Your task to perform on an android device: move a message to another label in the gmail app Image 0: 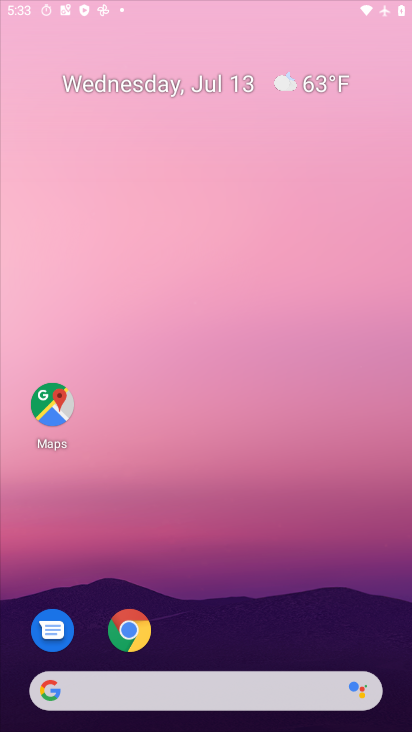
Step 0: press home button
Your task to perform on an android device: move a message to another label in the gmail app Image 1: 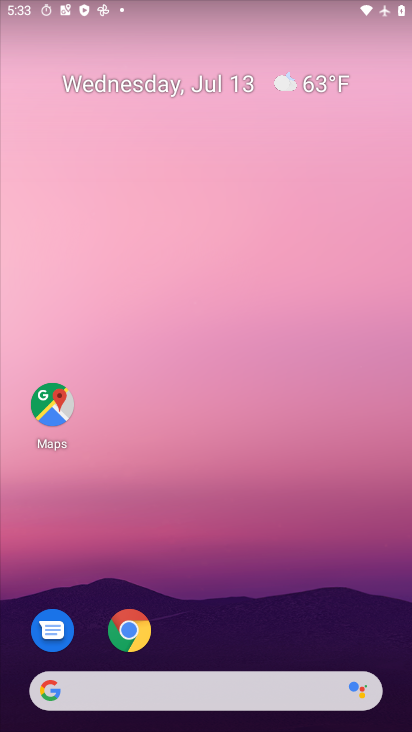
Step 1: drag from (300, 543) to (245, 70)
Your task to perform on an android device: move a message to another label in the gmail app Image 2: 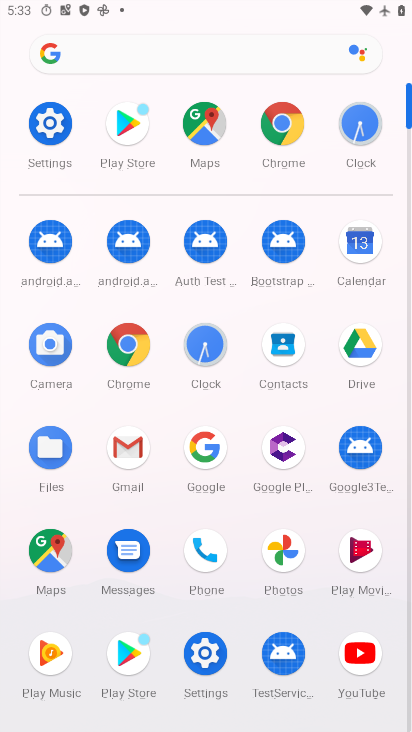
Step 2: click (133, 449)
Your task to perform on an android device: move a message to another label in the gmail app Image 3: 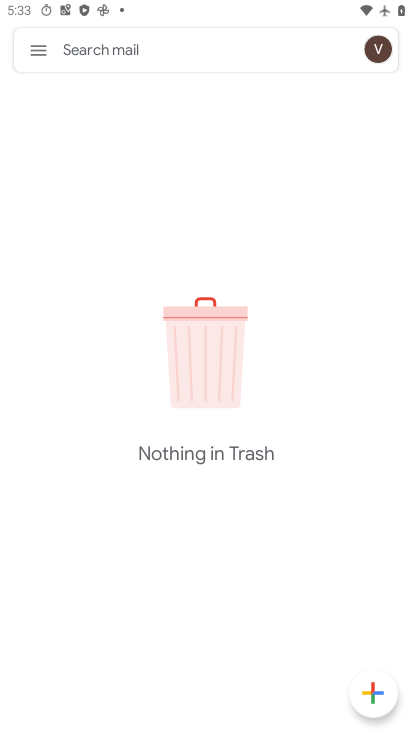
Step 3: click (36, 44)
Your task to perform on an android device: move a message to another label in the gmail app Image 4: 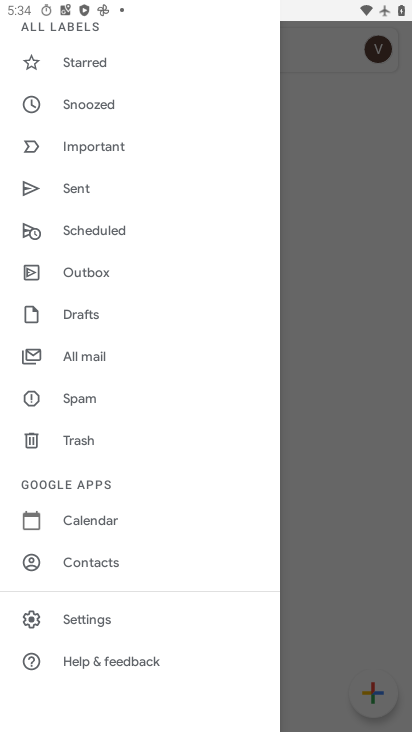
Step 4: click (82, 354)
Your task to perform on an android device: move a message to another label in the gmail app Image 5: 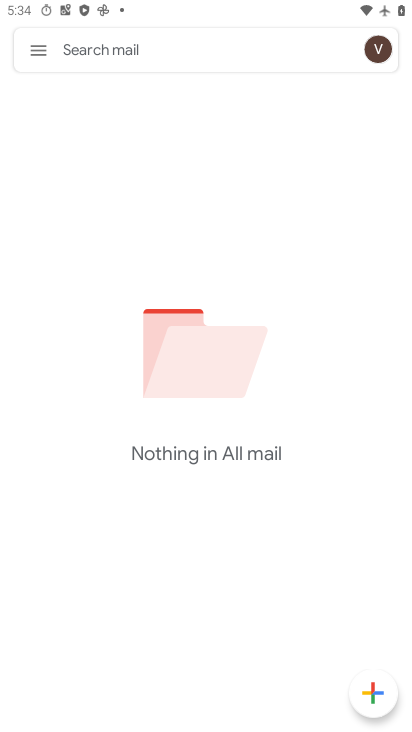
Step 5: task complete